Your task to perform on an android device: Go to display settings Image 0: 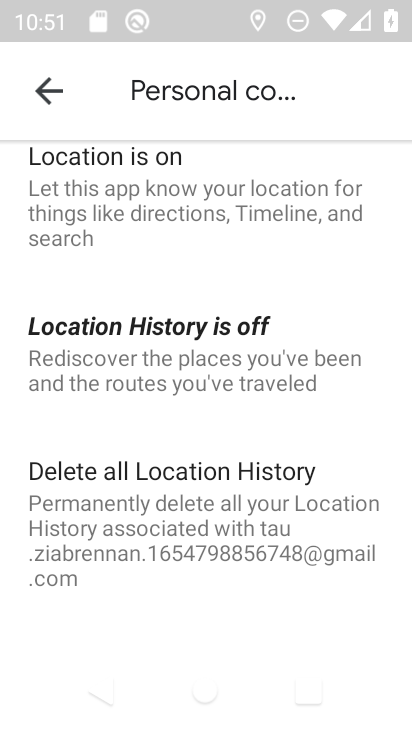
Step 0: press home button
Your task to perform on an android device: Go to display settings Image 1: 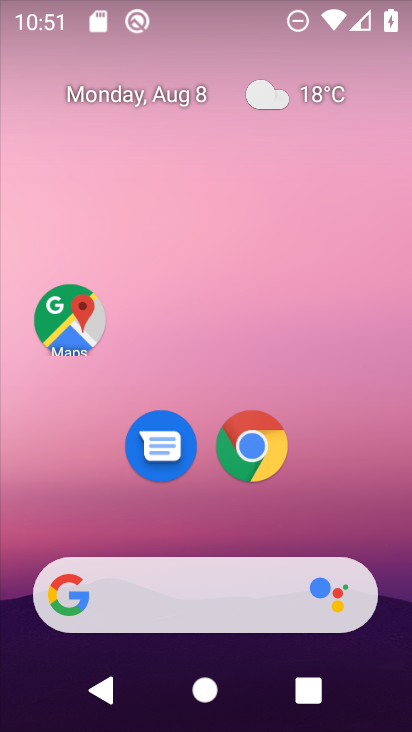
Step 1: drag from (383, 550) to (349, 91)
Your task to perform on an android device: Go to display settings Image 2: 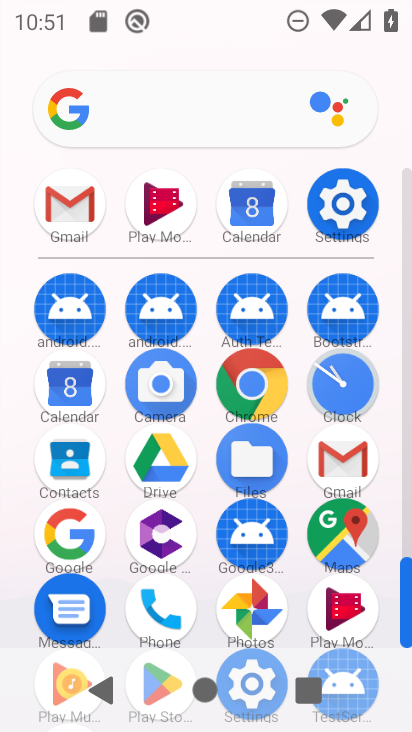
Step 2: drag from (410, 547) to (405, 506)
Your task to perform on an android device: Go to display settings Image 3: 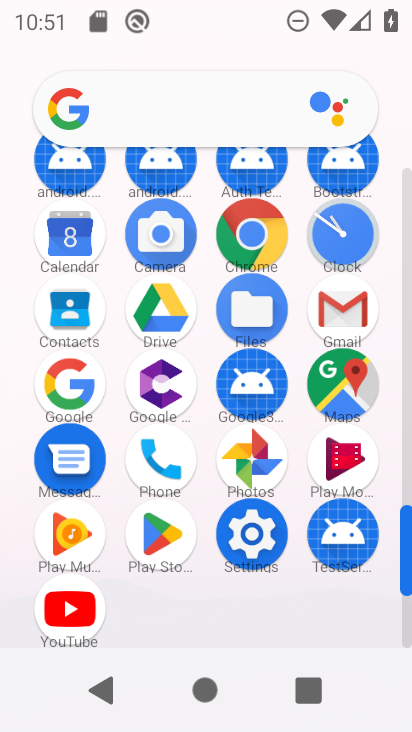
Step 3: click (252, 533)
Your task to perform on an android device: Go to display settings Image 4: 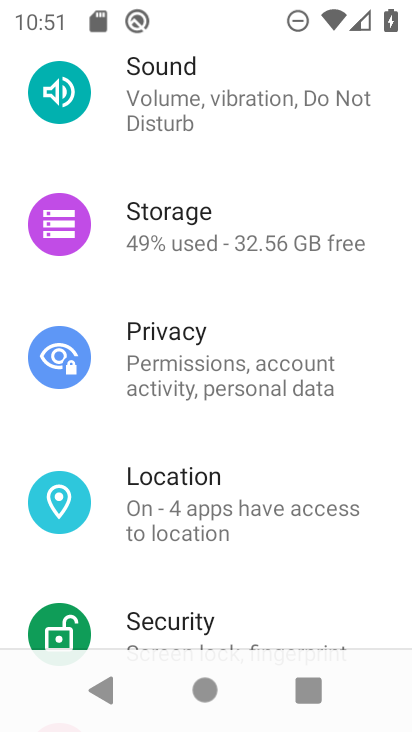
Step 4: drag from (358, 178) to (347, 425)
Your task to perform on an android device: Go to display settings Image 5: 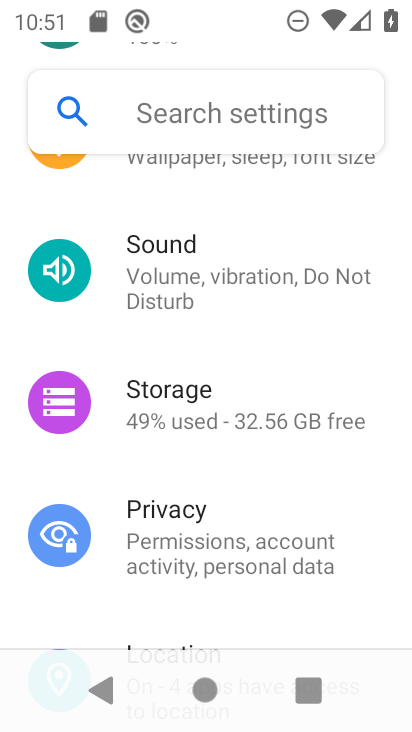
Step 5: drag from (348, 237) to (333, 571)
Your task to perform on an android device: Go to display settings Image 6: 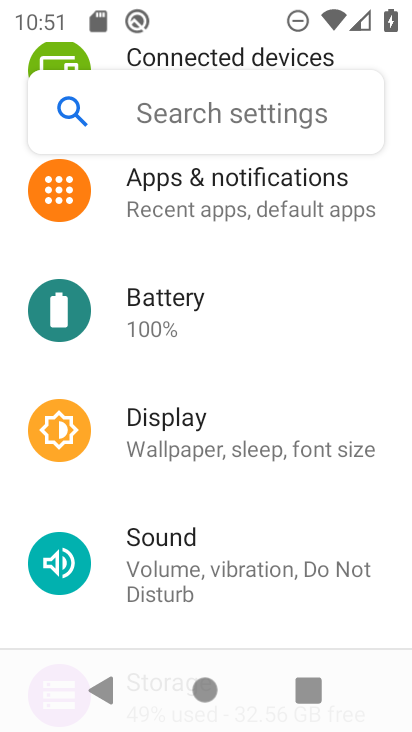
Step 6: click (162, 428)
Your task to perform on an android device: Go to display settings Image 7: 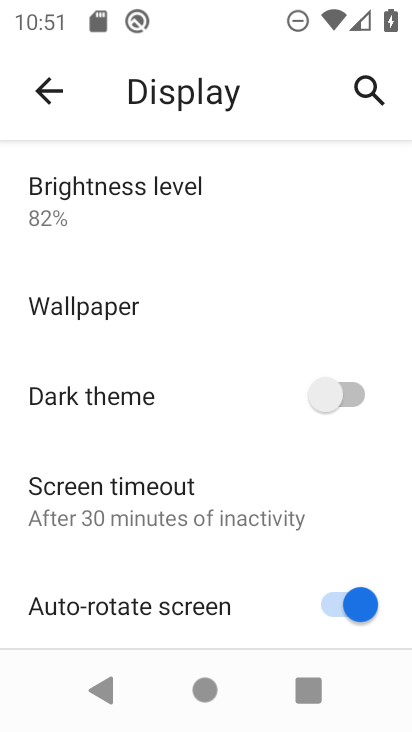
Step 7: drag from (269, 610) to (261, 410)
Your task to perform on an android device: Go to display settings Image 8: 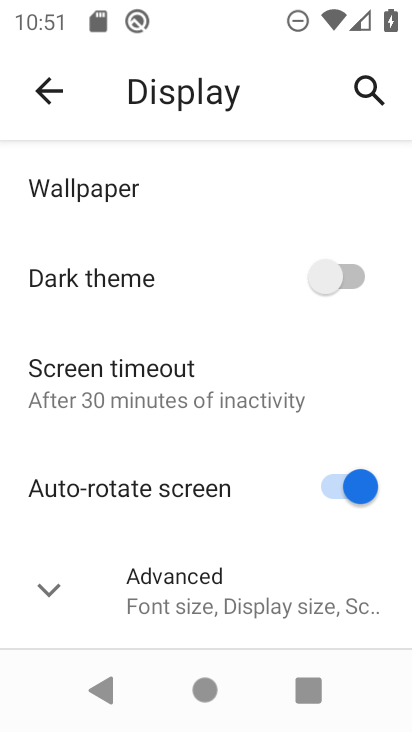
Step 8: click (39, 594)
Your task to perform on an android device: Go to display settings Image 9: 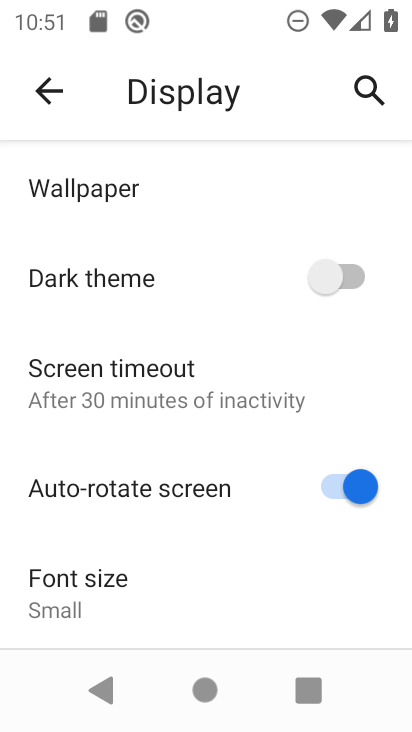
Step 9: task complete